Your task to perform on an android device: toggle wifi Image 0: 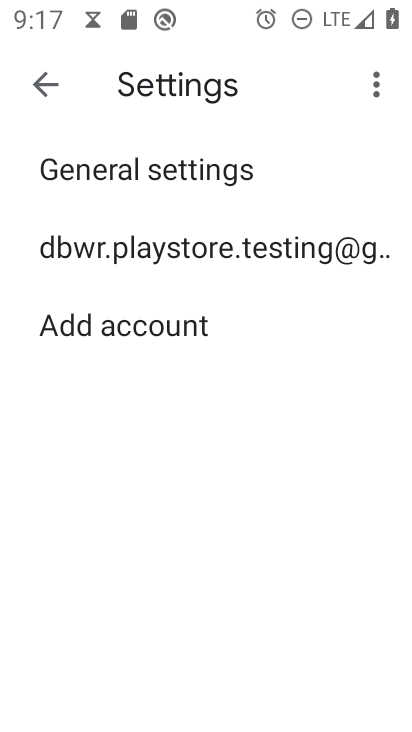
Step 0: press home button
Your task to perform on an android device: toggle wifi Image 1: 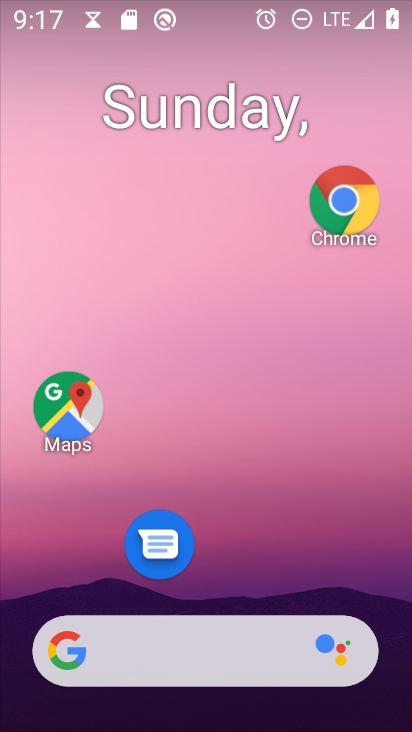
Step 1: drag from (248, 577) to (319, 40)
Your task to perform on an android device: toggle wifi Image 2: 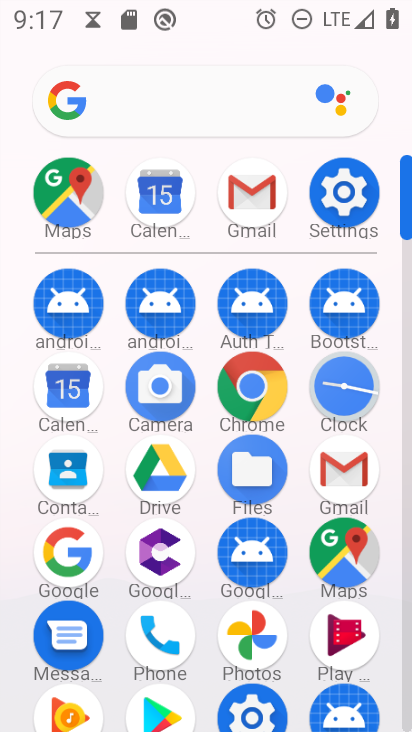
Step 2: click (329, 195)
Your task to perform on an android device: toggle wifi Image 3: 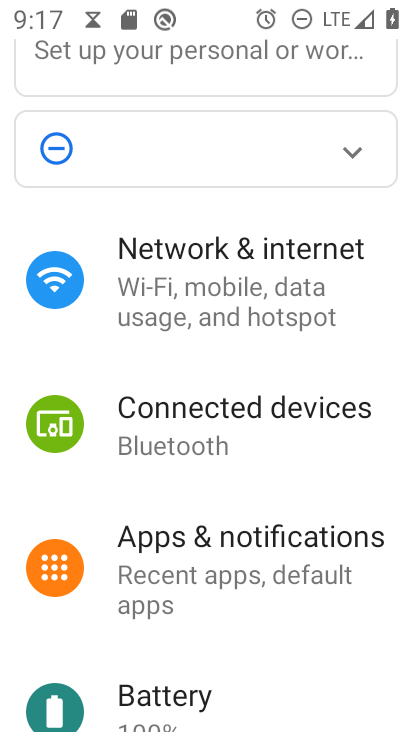
Step 3: click (186, 313)
Your task to perform on an android device: toggle wifi Image 4: 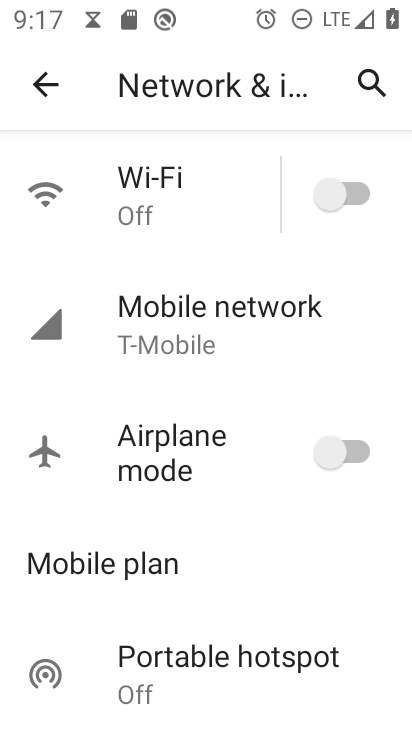
Step 4: click (328, 187)
Your task to perform on an android device: toggle wifi Image 5: 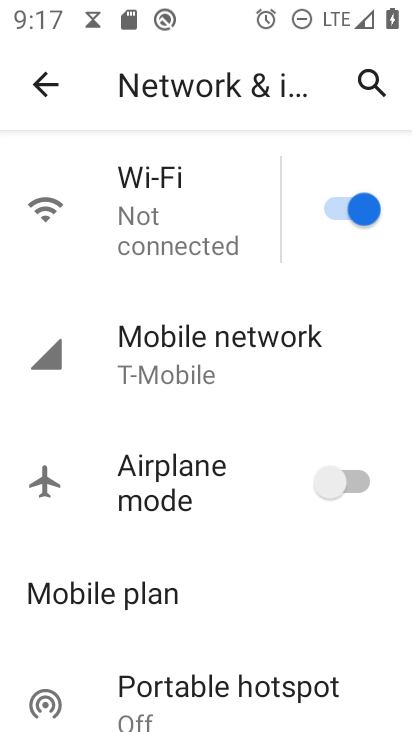
Step 5: task complete